Your task to perform on an android device: Open the web browser Image 0: 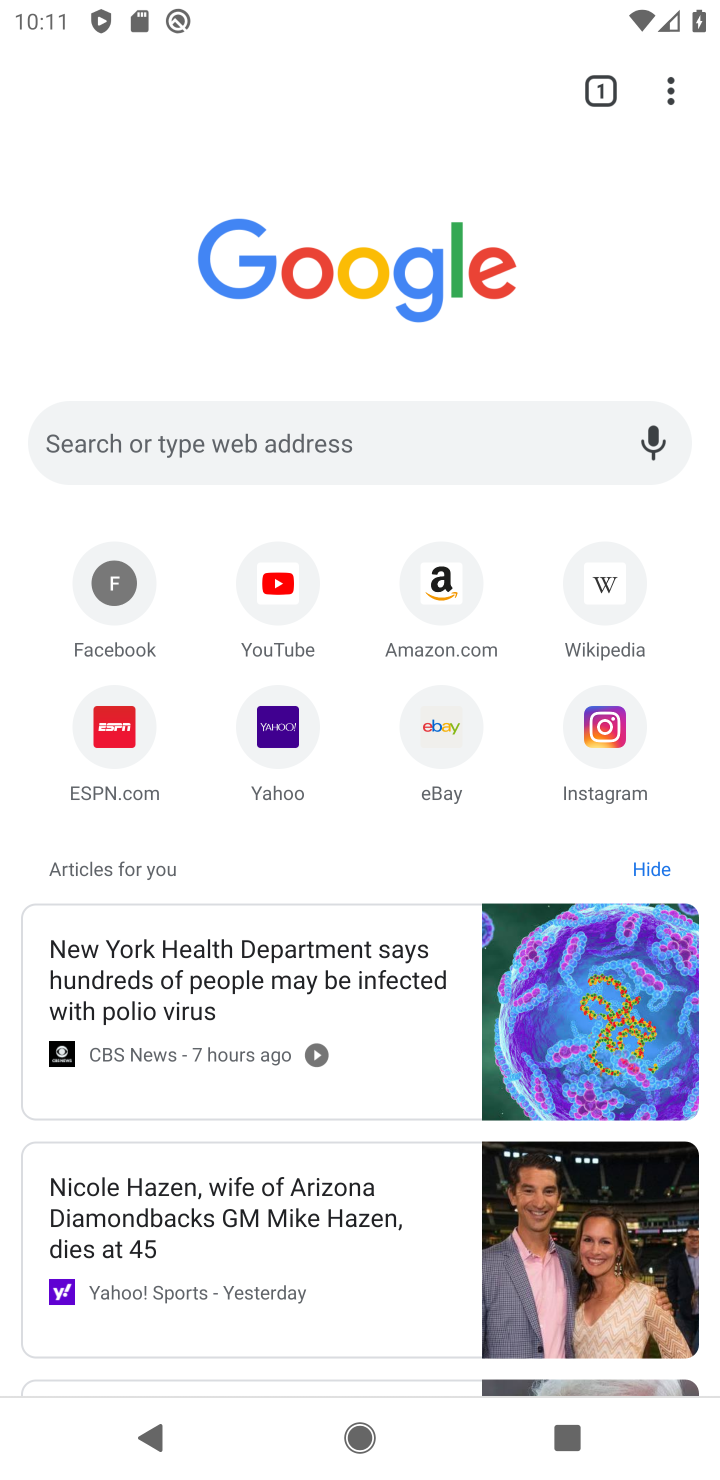
Step 0: task complete